Your task to perform on an android device: Open settings Image 0: 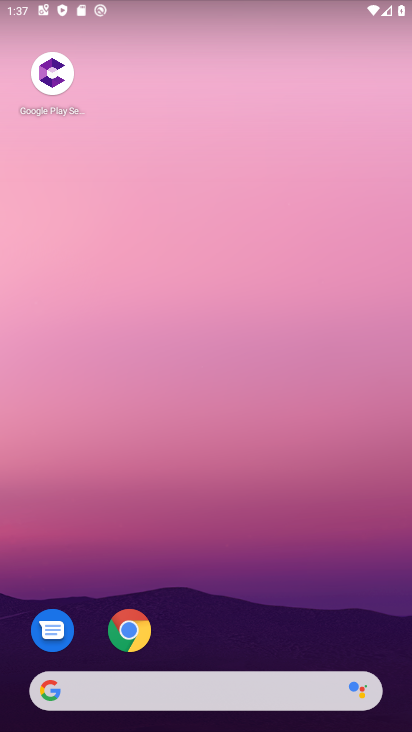
Step 0: drag from (393, 648) to (361, 160)
Your task to perform on an android device: Open settings Image 1: 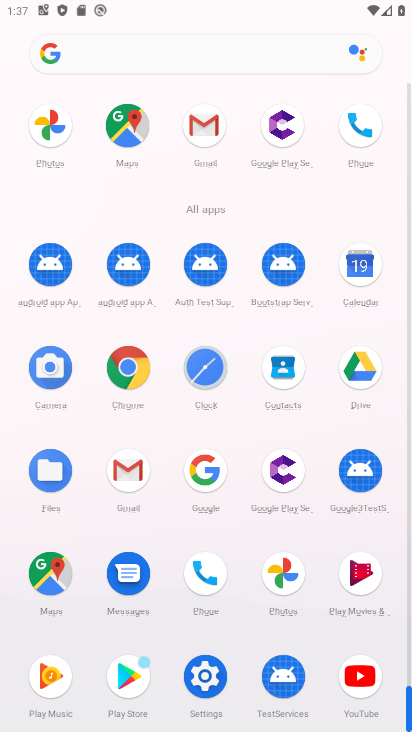
Step 1: click (201, 679)
Your task to perform on an android device: Open settings Image 2: 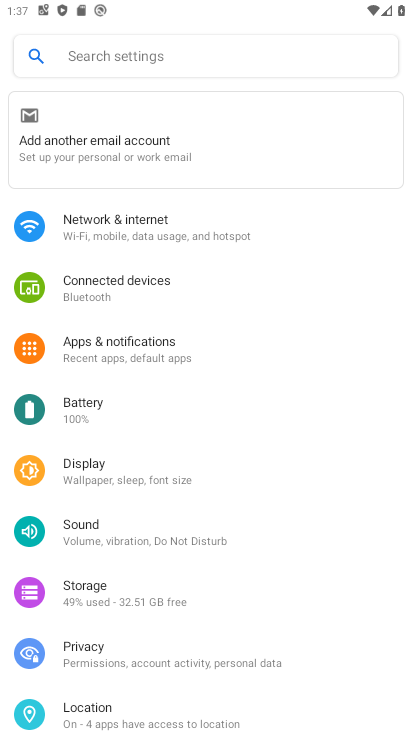
Step 2: task complete